Your task to perform on an android device: change the clock display to analog Image 0: 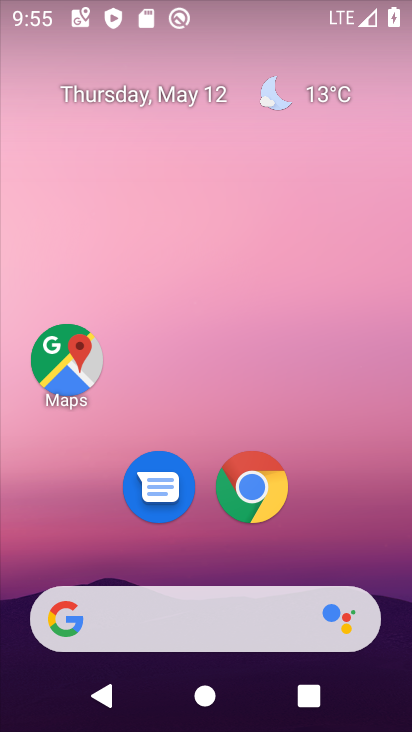
Step 0: drag from (353, 556) to (352, 24)
Your task to perform on an android device: change the clock display to analog Image 1: 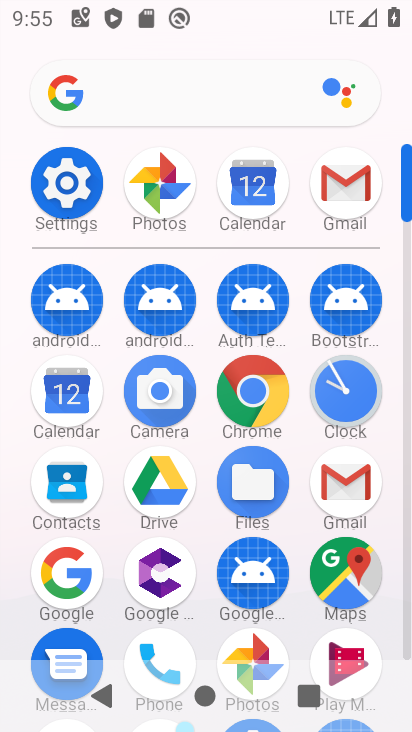
Step 1: click (349, 401)
Your task to perform on an android device: change the clock display to analog Image 2: 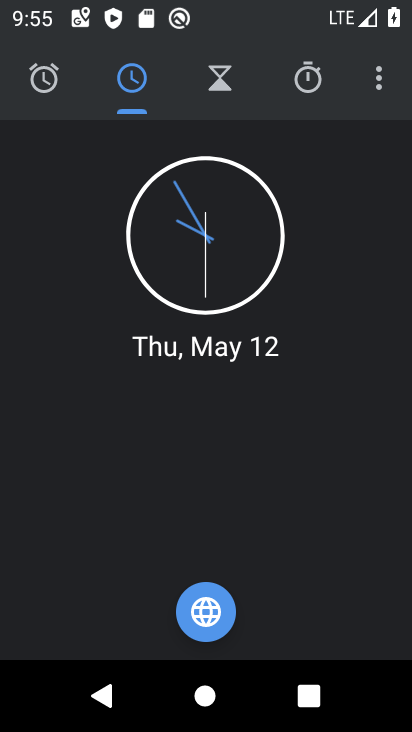
Step 2: click (383, 79)
Your task to perform on an android device: change the clock display to analog Image 3: 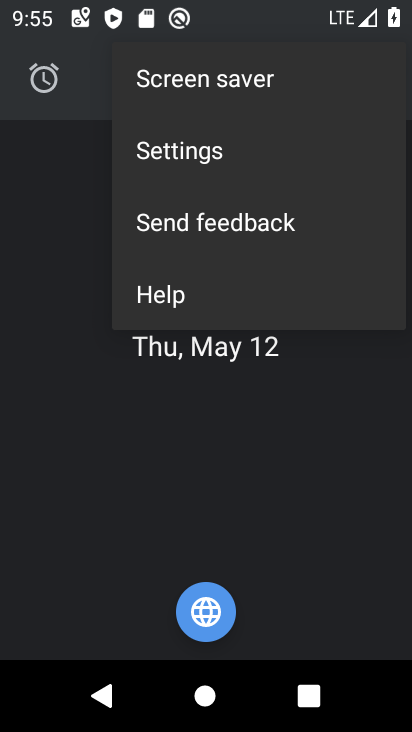
Step 3: click (181, 156)
Your task to perform on an android device: change the clock display to analog Image 4: 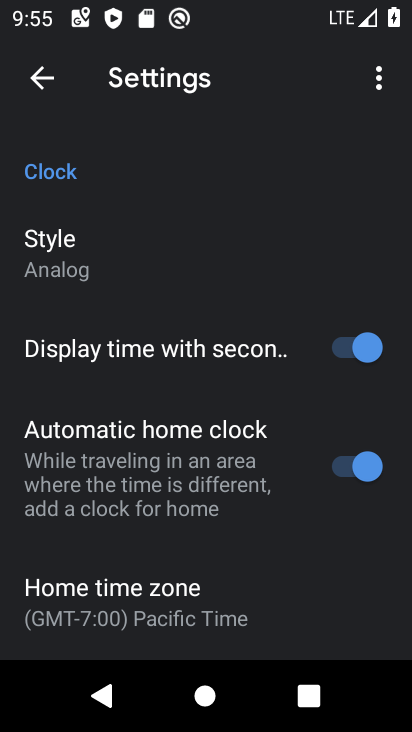
Step 4: task complete